Your task to perform on an android device: check out phone information Image 0: 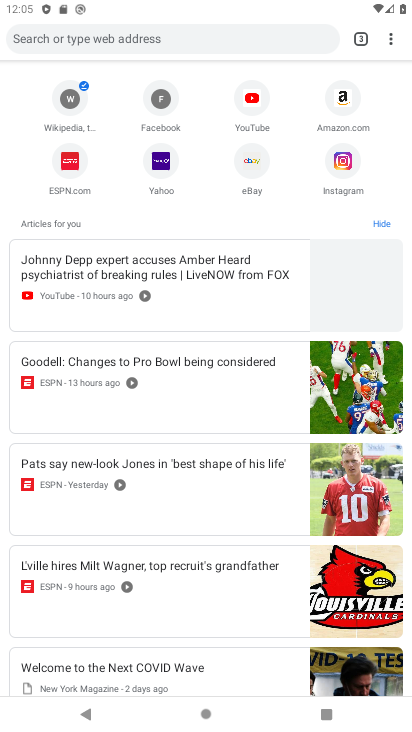
Step 0: click (389, 36)
Your task to perform on an android device: check out phone information Image 1: 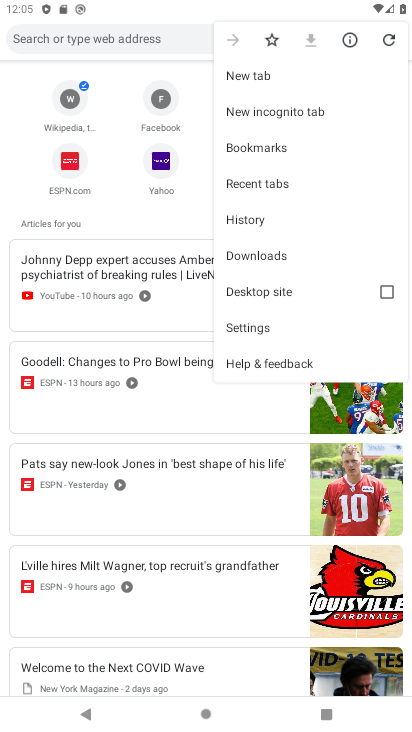
Step 1: press home button
Your task to perform on an android device: check out phone information Image 2: 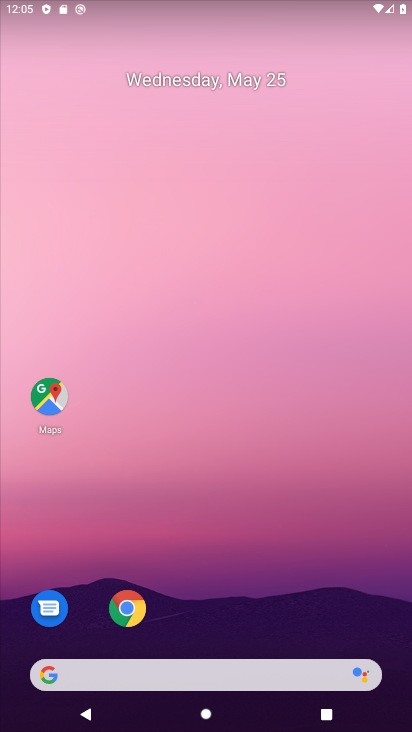
Step 2: drag from (247, 619) to (141, 28)
Your task to perform on an android device: check out phone information Image 3: 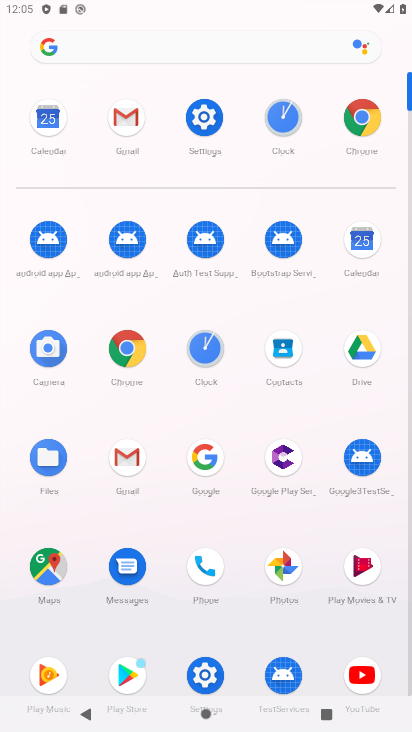
Step 3: click (206, 137)
Your task to perform on an android device: check out phone information Image 4: 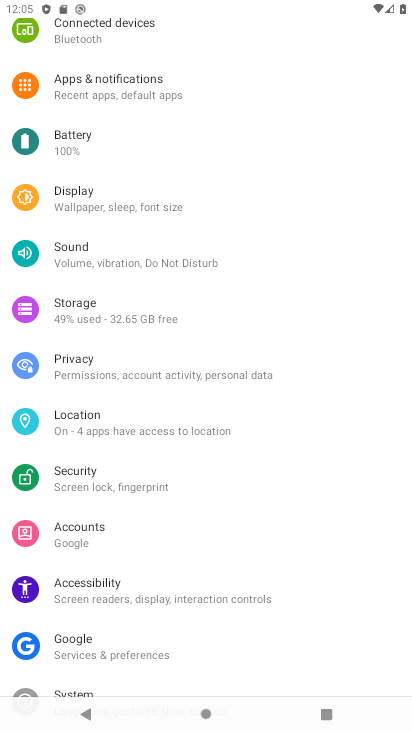
Step 4: drag from (206, 628) to (206, 338)
Your task to perform on an android device: check out phone information Image 5: 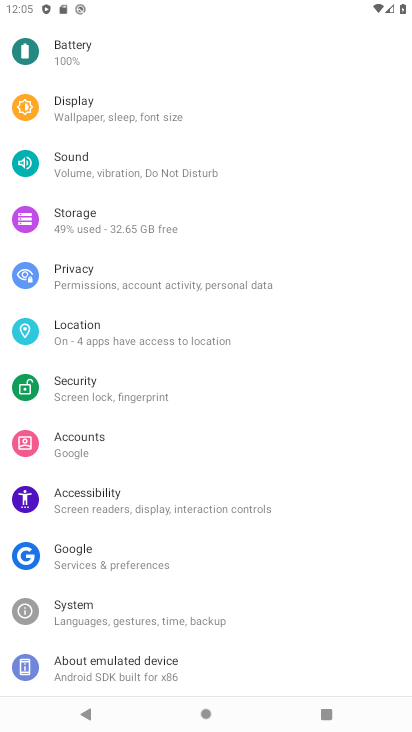
Step 5: click (173, 605)
Your task to perform on an android device: check out phone information Image 6: 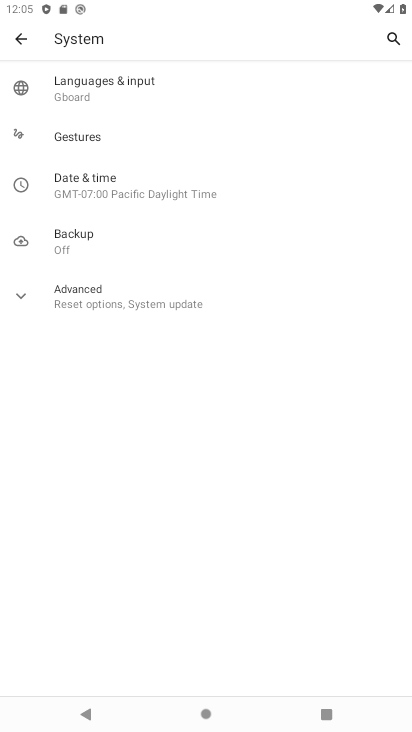
Step 6: task complete